Your task to perform on an android device: Open ESPN.com Image 0: 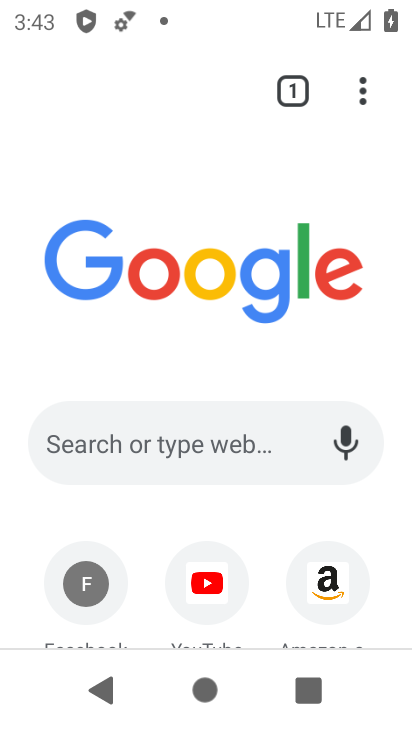
Step 0: drag from (378, 610) to (408, 457)
Your task to perform on an android device: Open ESPN.com Image 1: 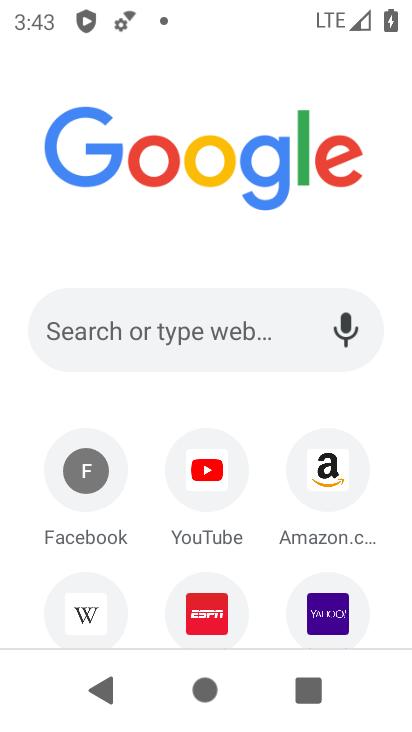
Step 1: drag from (370, 520) to (408, 258)
Your task to perform on an android device: Open ESPN.com Image 2: 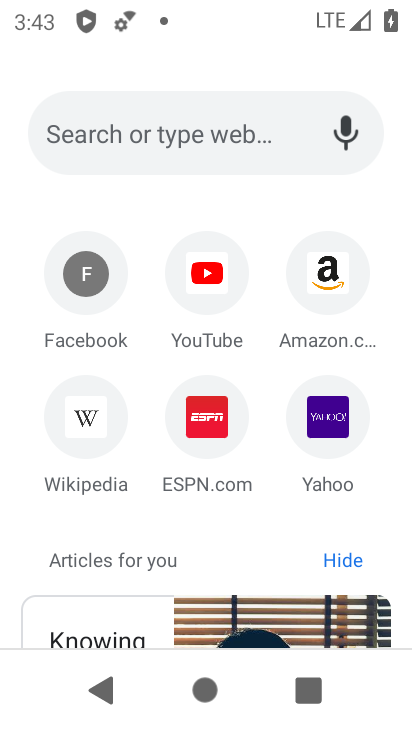
Step 2: click (199, 429)
Your task to perform on an android device: Open ESPN.com Image 3: 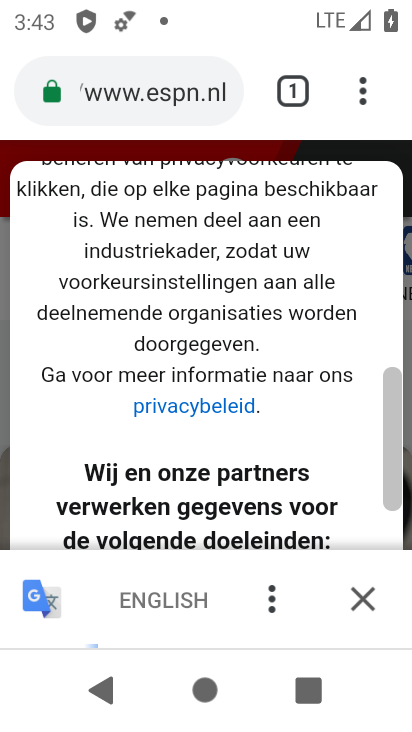
Step 3: task complete